Your task to perform on an android device: Open Google Maps Image 0: 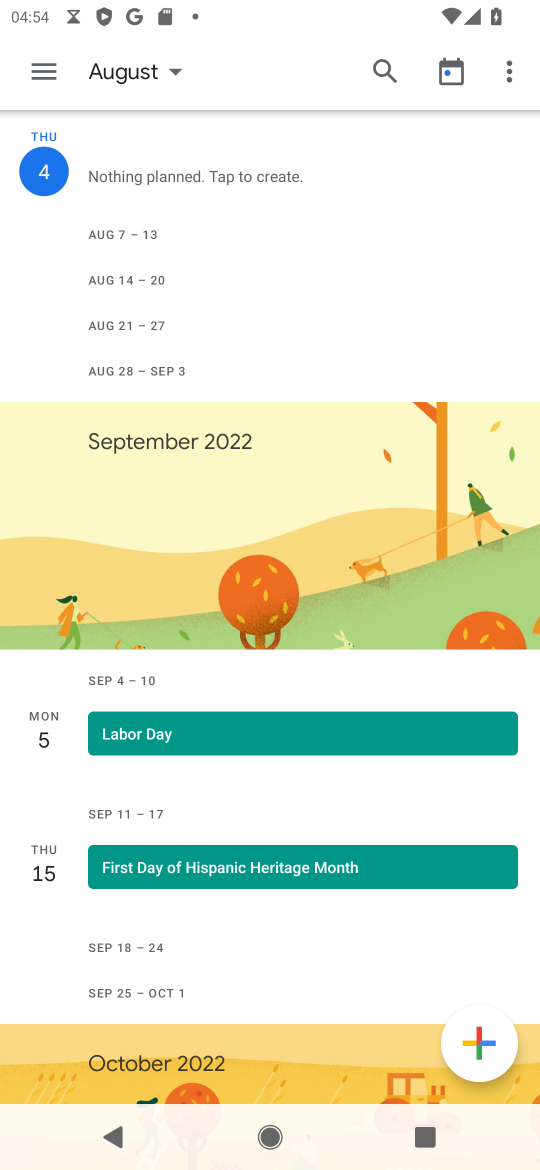
Step 0: press home button
Your task to perform on an android device: Open Google Maps Image 1: 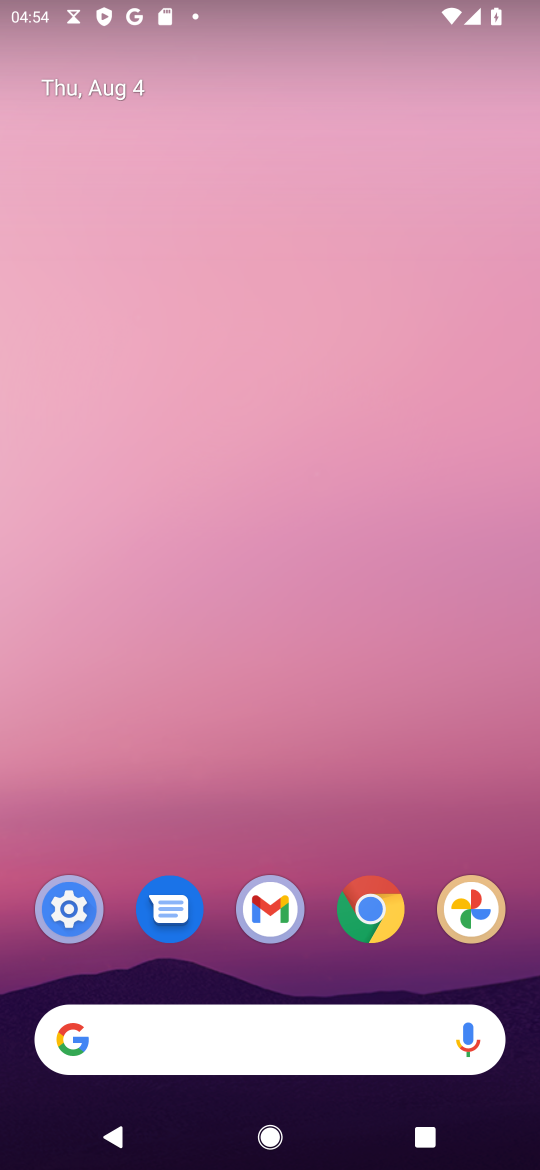
Step 1: drag from (301, 1055) to (439, 470)
Your task to perform on an android device: Open Google Maps Image 2: 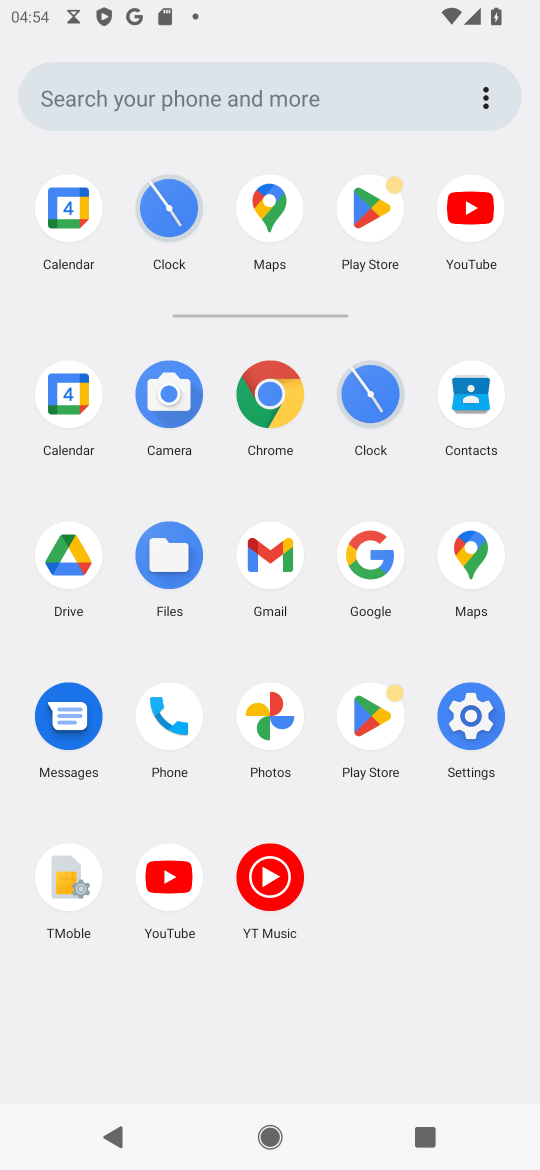
Step 2: click (266, 196)
Your task to perform on an android device: Open Google Maps Image 3: 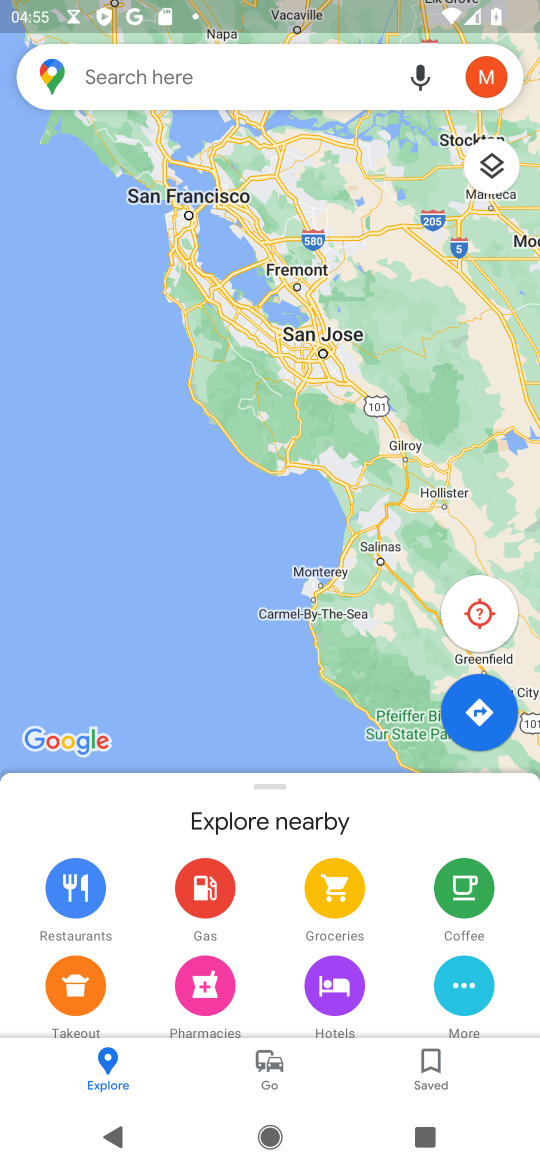
Step 3: task complete